Your task to perform on an android device: View the shopping cart on bestbuy. Add jbl charge 4 to the cart on bestbuy Image 0: 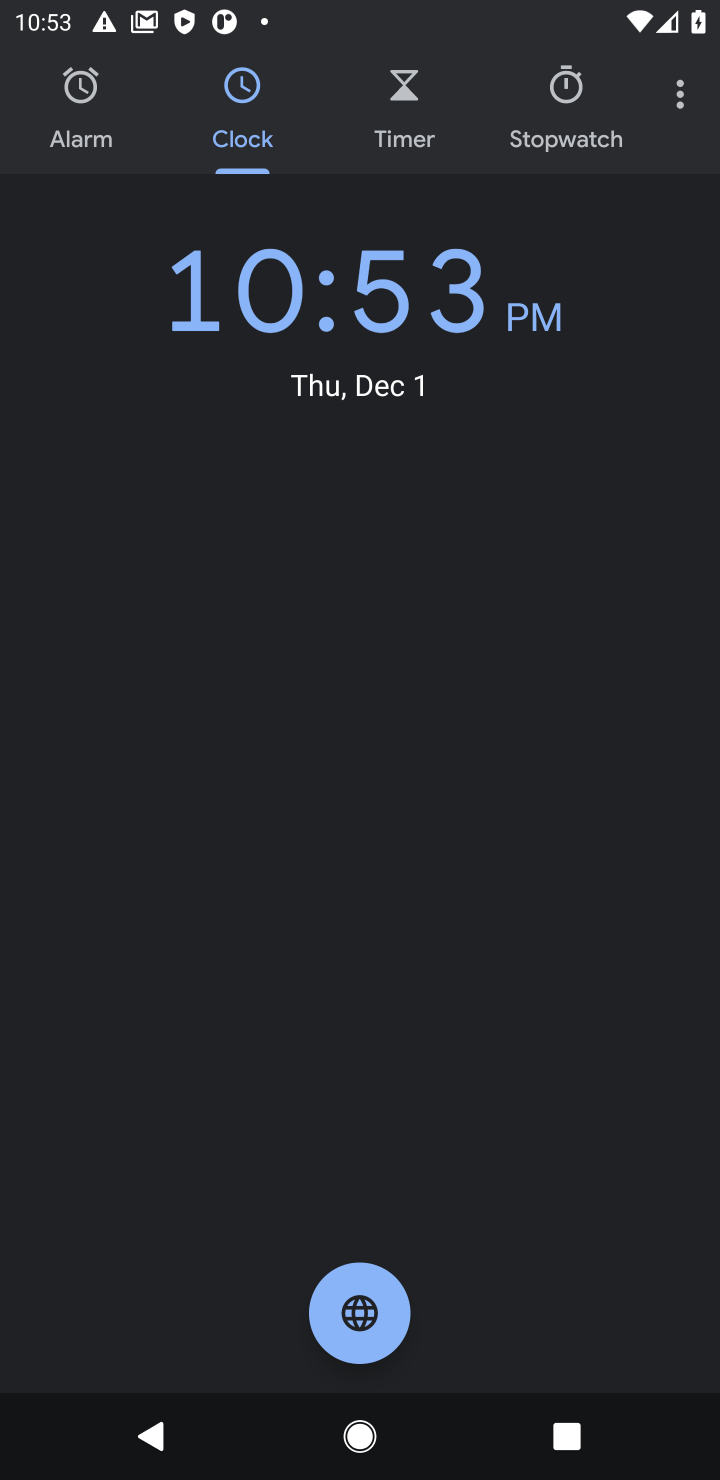
Step 0: press home button
Your task to perform on an android device: View the shopping cart on bestbuy. Add jbl charge 4 to the cart on bestbuy Image 1: 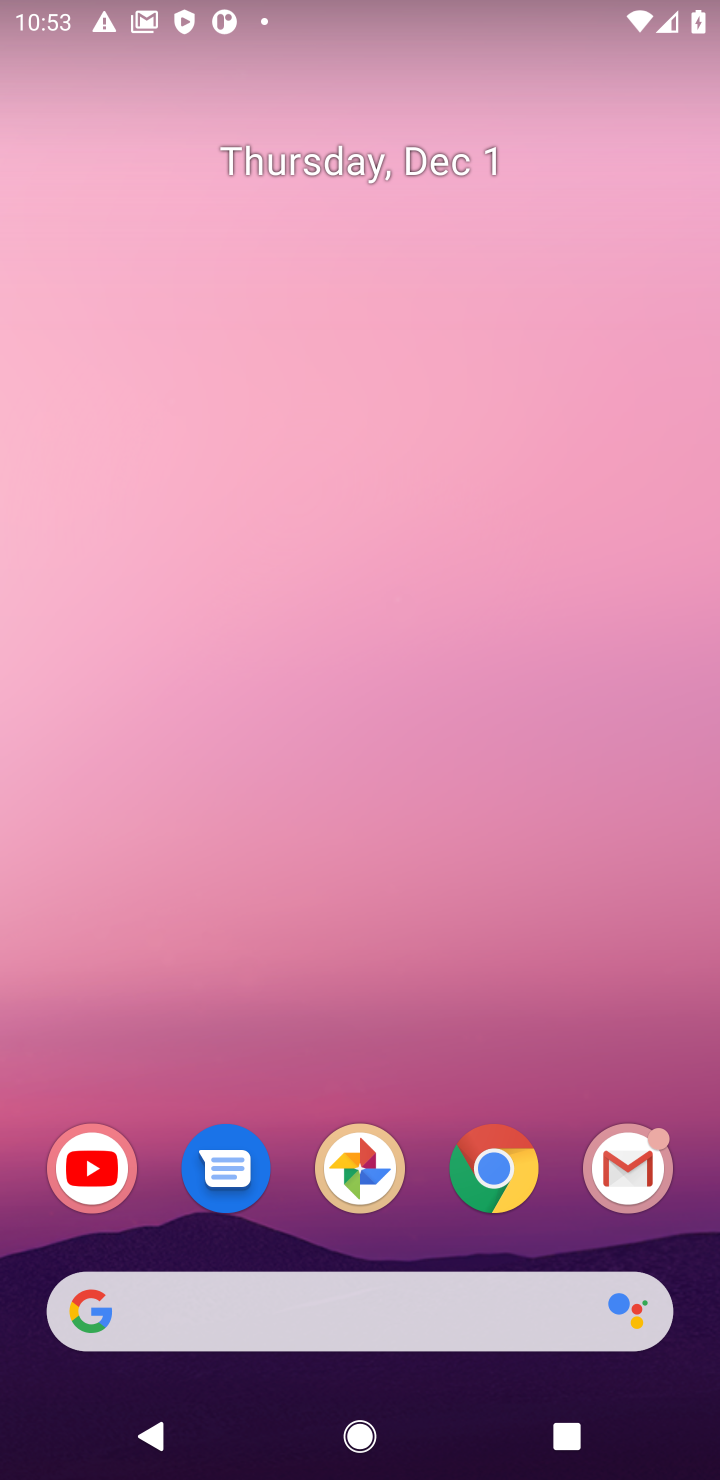
Step 1: click (499, 1152)
Your task to perform on an android device: View the shopping cart on bestbuy. Add jbl charge 4 to the cart on bestbuy Image 2: 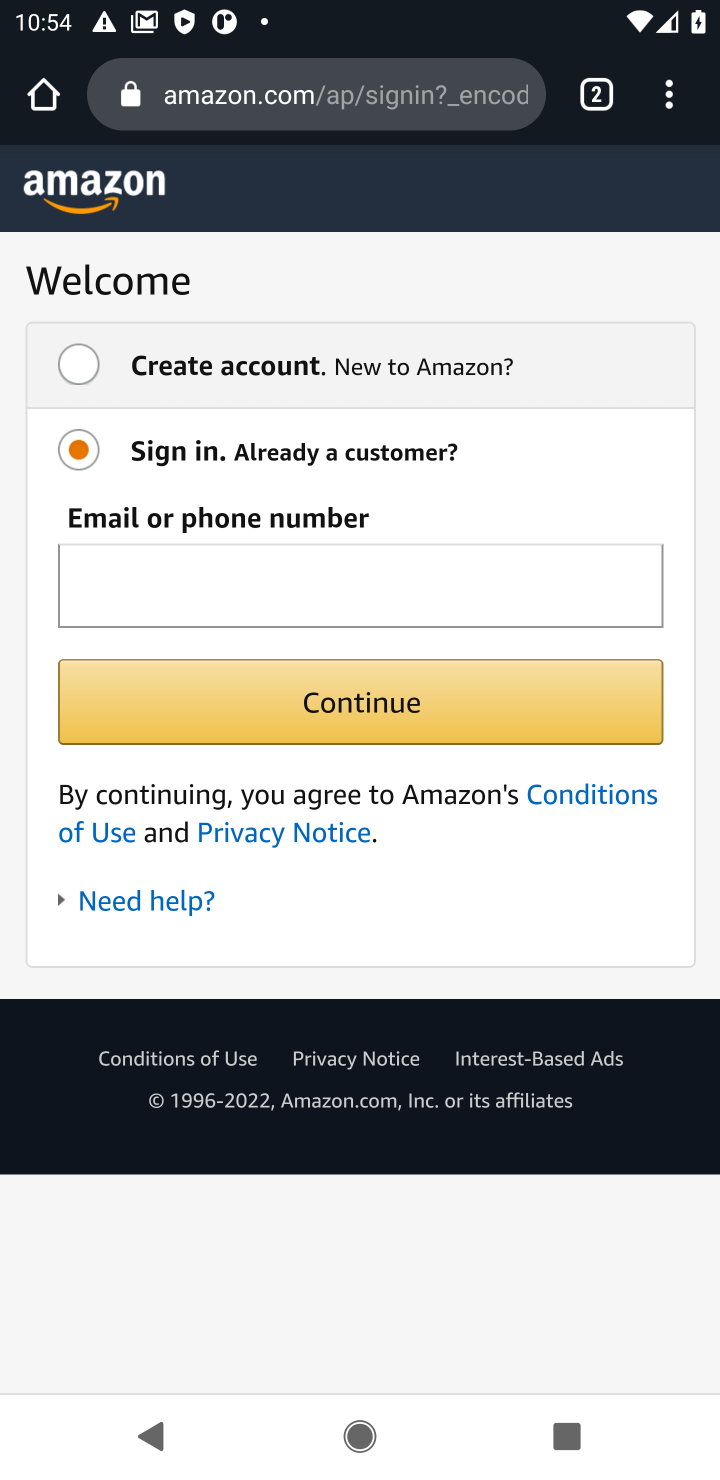
Step 2: click (304, 99)
Your task to perform on an android device: View the shopping cart on bestbuy. Add jbl charge 4 to the cart on bestbuy Image 3: 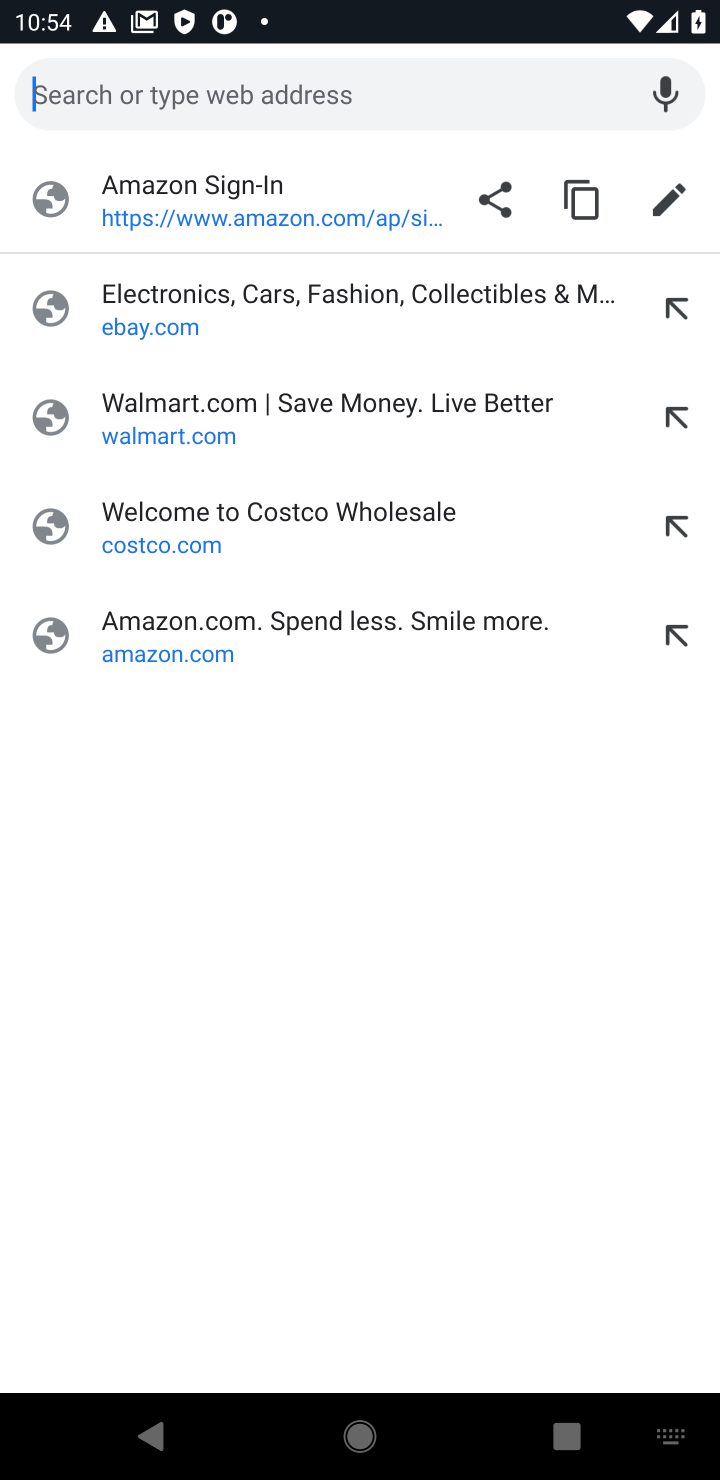
Step 3: type "bestbuy.com"
Your task to perform on an android device: View the shopping cart on bestbuy. Add jbl charge 4 to the cart on bestbuy Image 4: 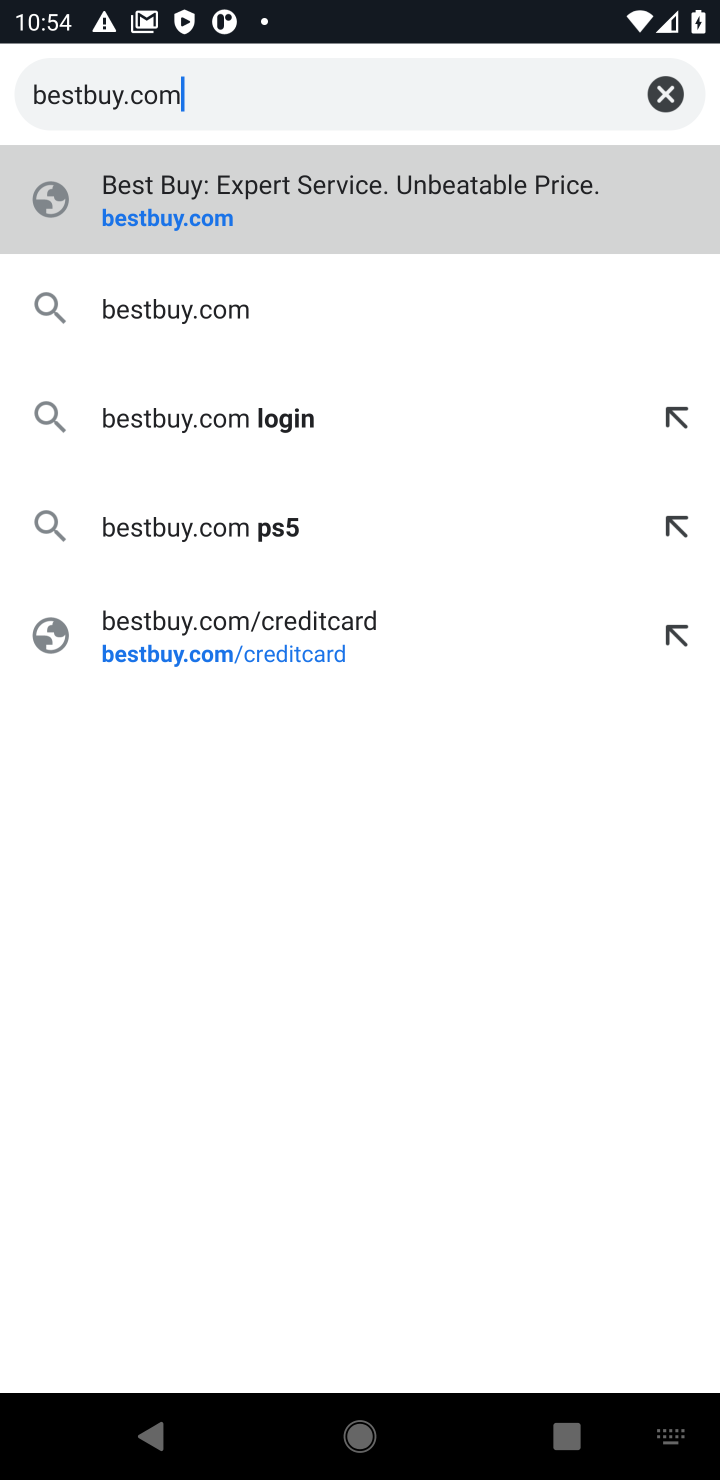
Step 4: click (188, 213)
Your task to perform on an android device: View the shopping cart on bestbuy. Add jbl charge 4 to the cart on bestbuy Image 5: 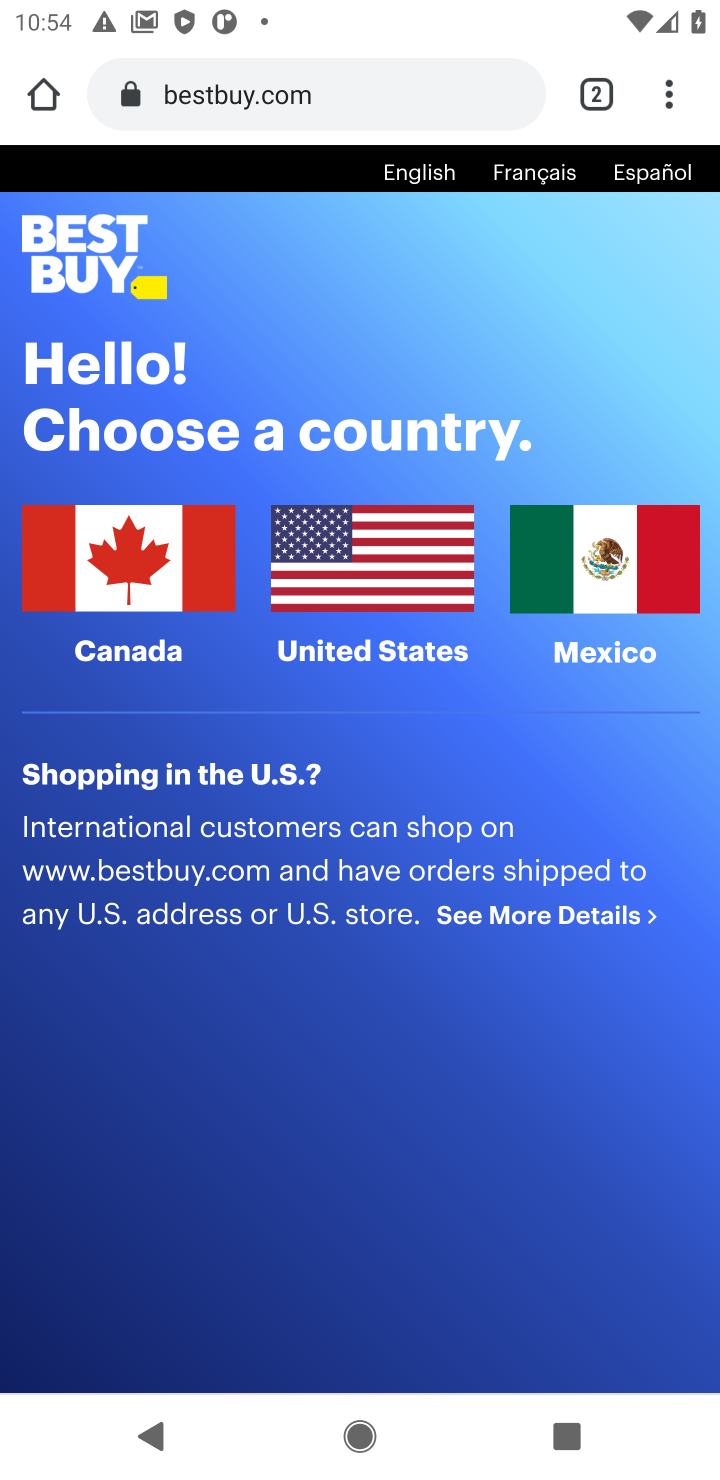
Step 5: click (357, 603)
Your task to perform on an android device: View the shopping cart on bestbuy. Add jbl charge 4 to the cart on bestbuy Image 6: 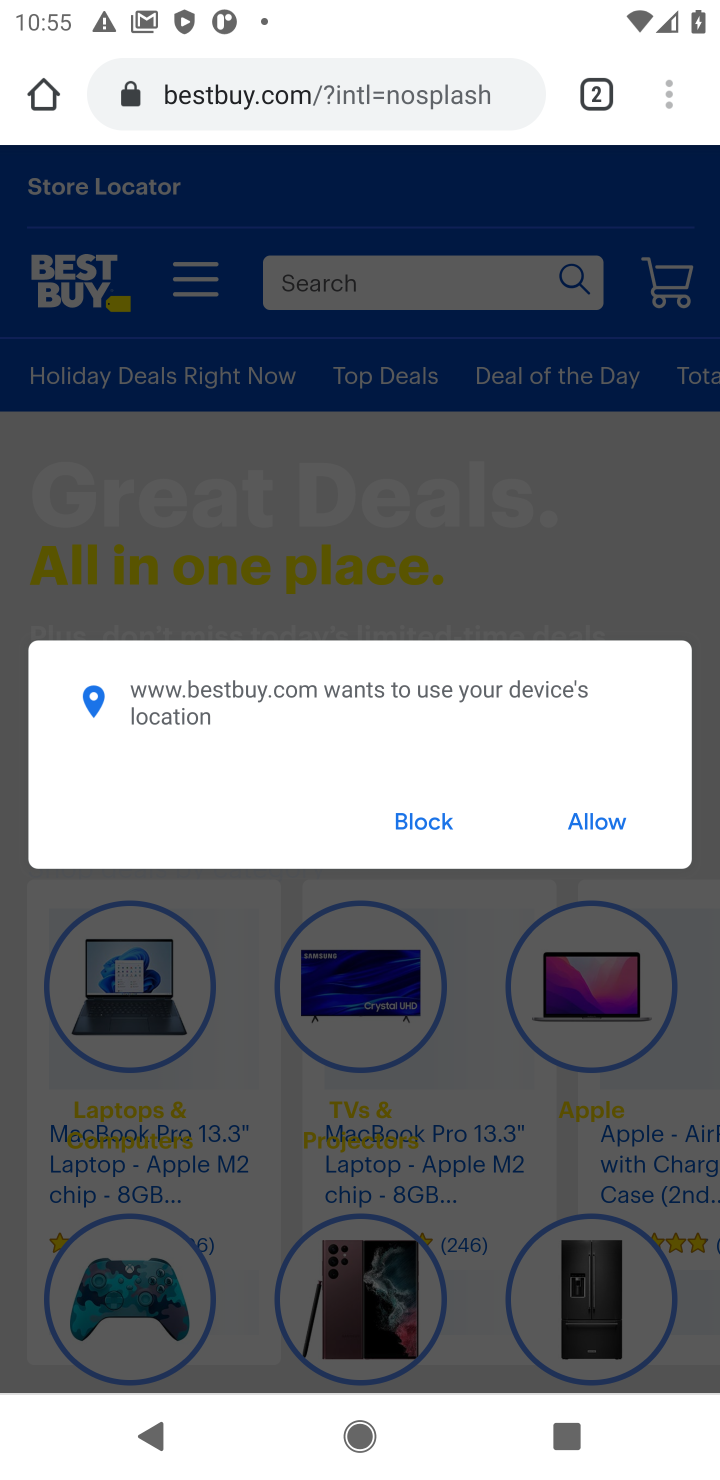
Step 6: click (404, 837)
Your task to perform on an android device: View the shopping cart on bestbuy. Add jbl charge 4 to the cart on bestbuy Image 7: 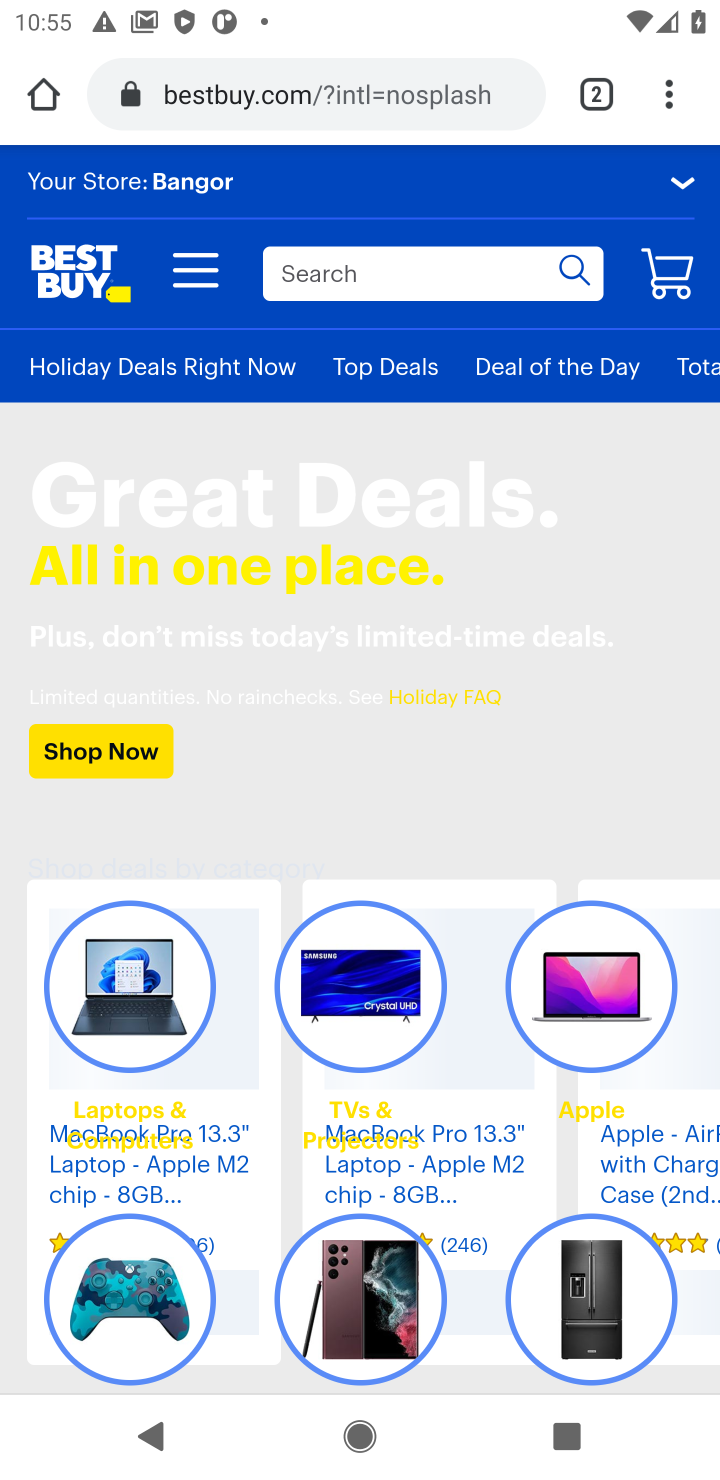
Step 7: click (650, 289)
Your task to perform on an android device: View the shopping cart on bestbuy. Add jbl charge 4 to the cart on bestbuy Image 8: 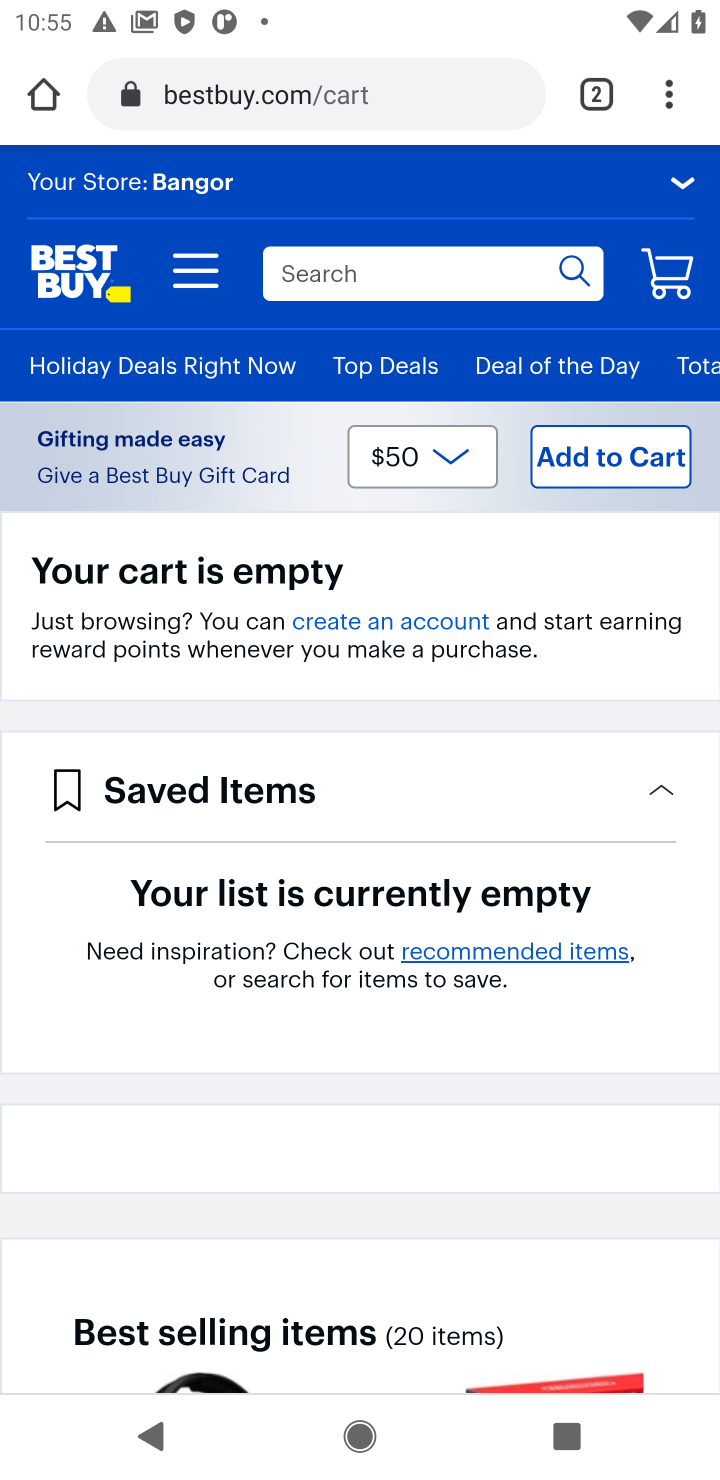
Step 8: click (342, 282)
Your task to perform on an android device: View the shopping cart on bestbuy. Add jbl charge 4 to the cart on bestbuy Image 9: 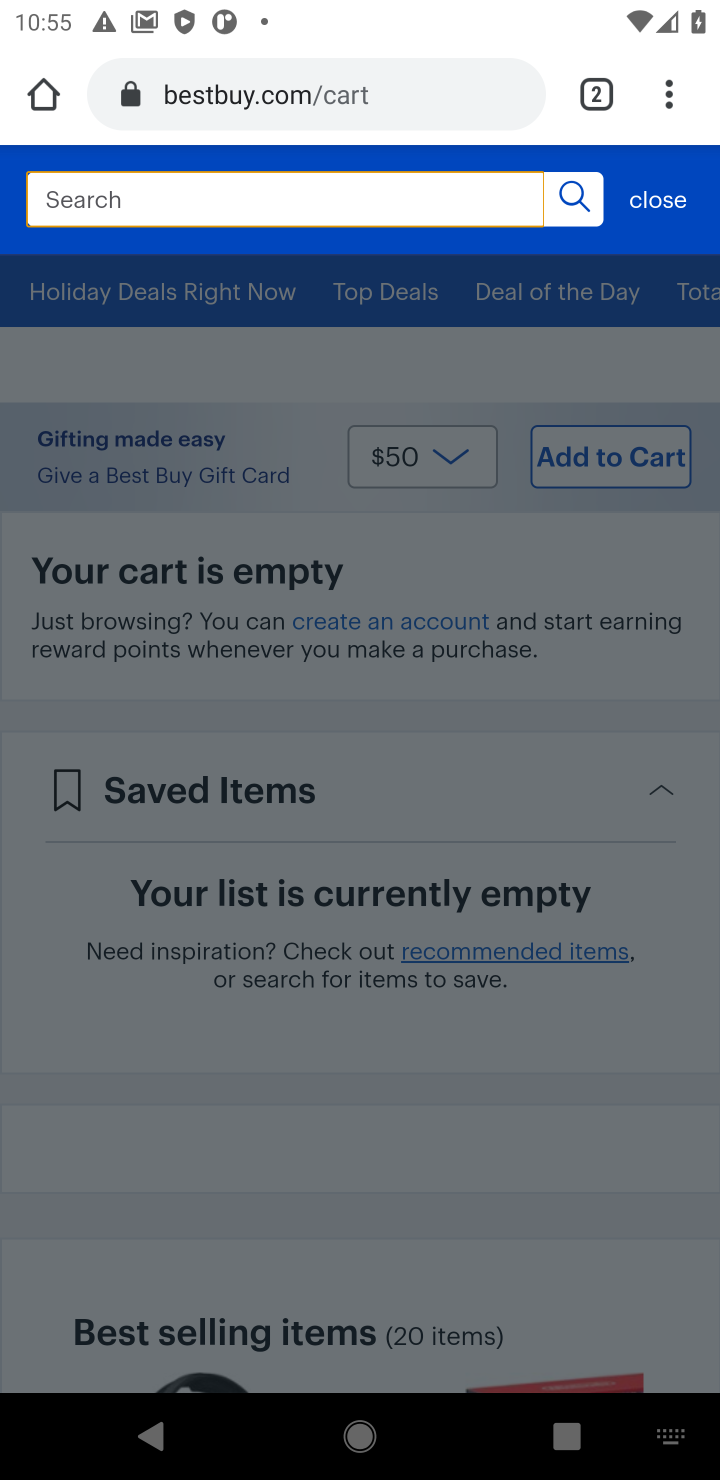
Step 9: type "jbl charge 4"
Your task to perform on an android device: View the shopping cart on bestbuy. Add jbl charge 4 to the cart on bestbuy Image 10: 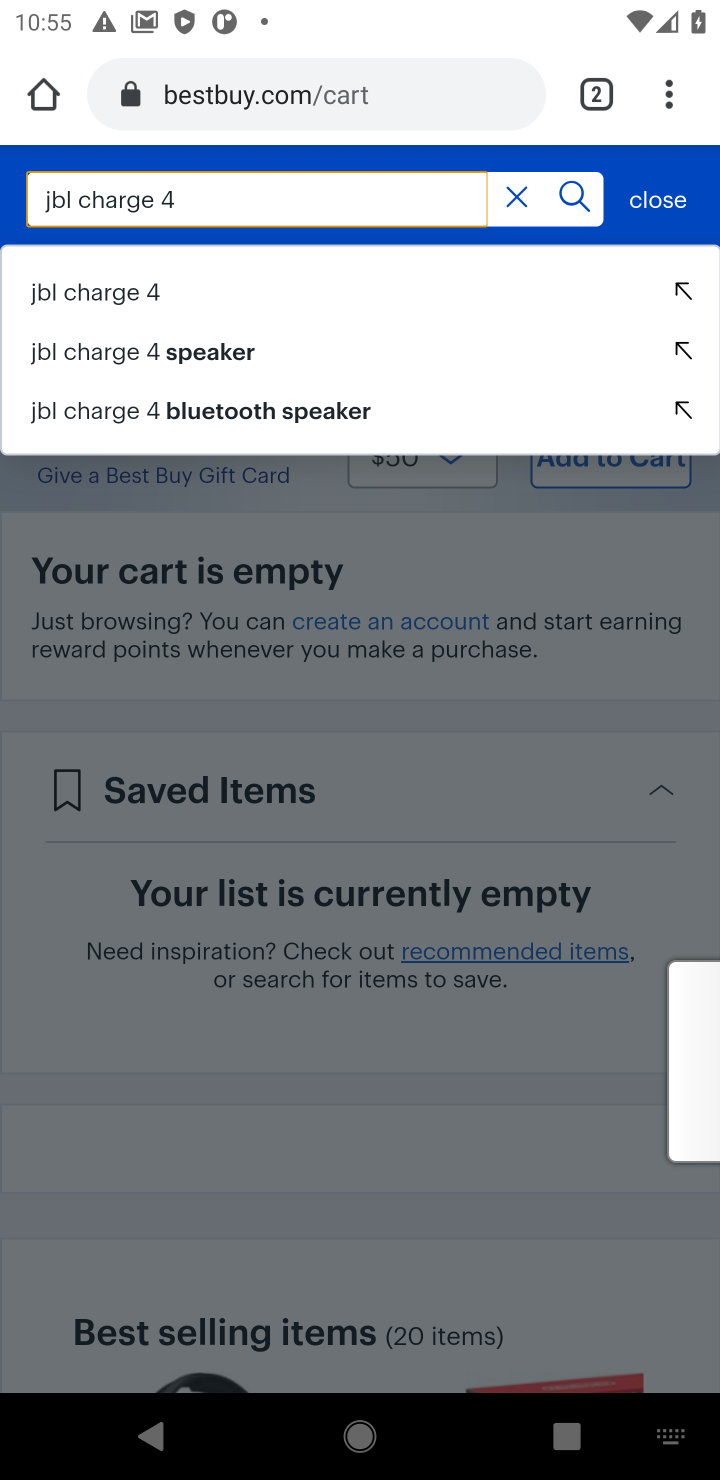
Step 10: click (92, 295)
Your task to perform on an android device: View the shopping cart on bestbuy. Add jbl charge 4 to the cart on bestbuy Image 11: 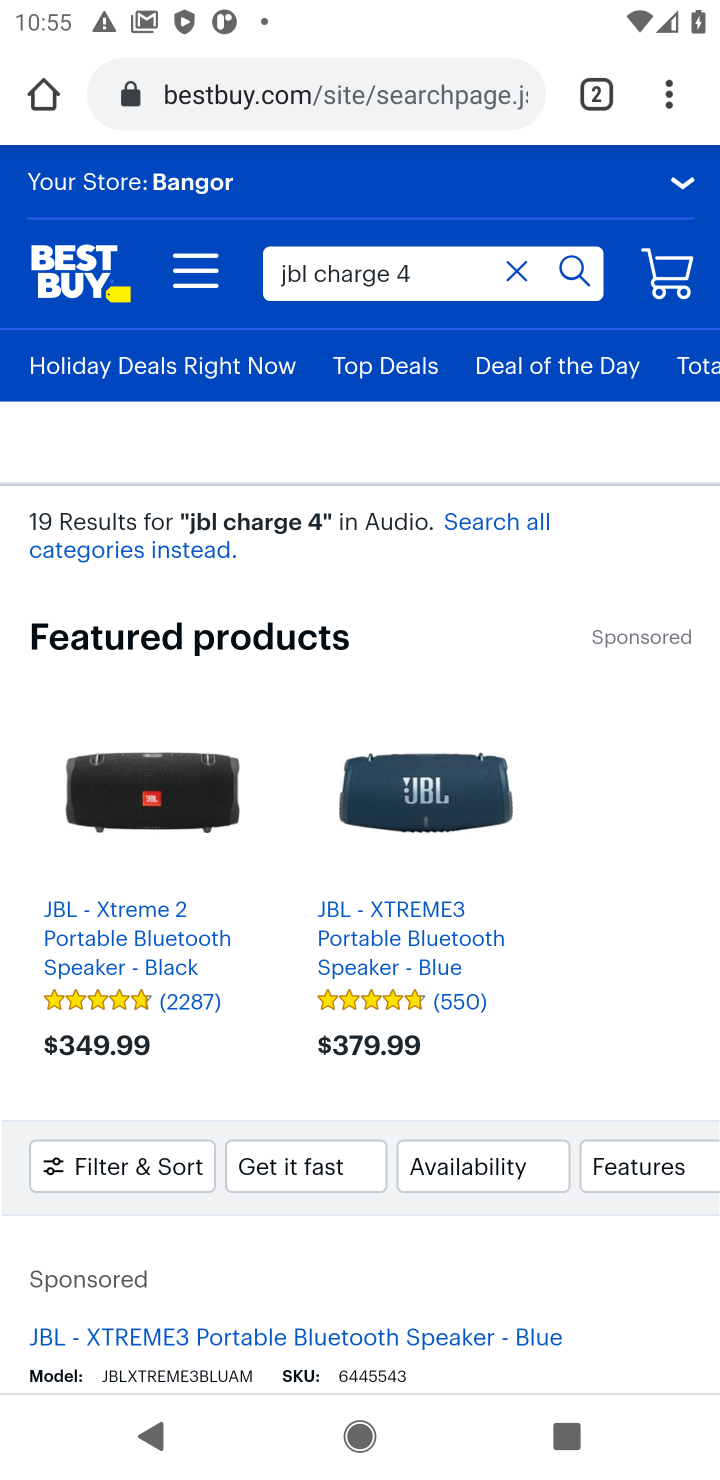
Step 11: task complete